Your task to perform on an android device: remove spam from my inbox in the gmail app Image 0: 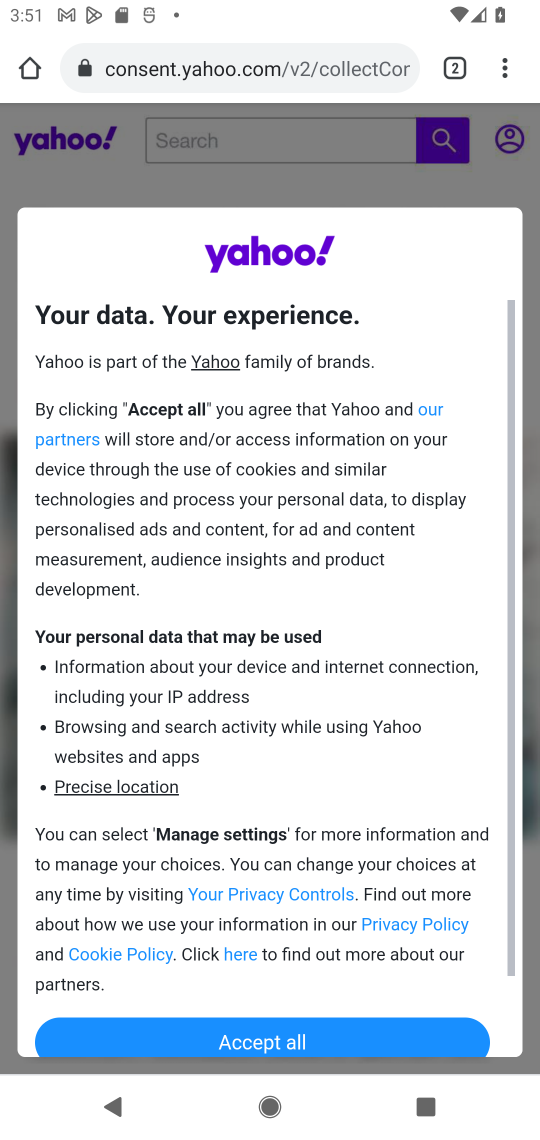
Step 0: press home button
Your task to perform on an android device: remove spam from my inbox in the gmail app Image 1: 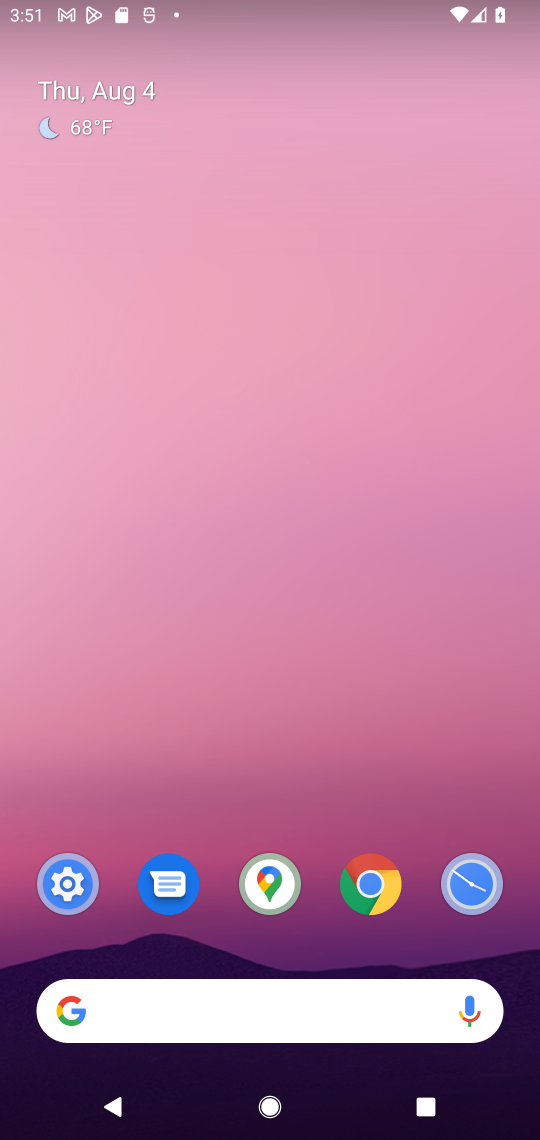
Step 1: drag from (295, 949) to (301, 165)
Your task to perform on an android device: remove spam from my inbox in the gmail app Image 2: 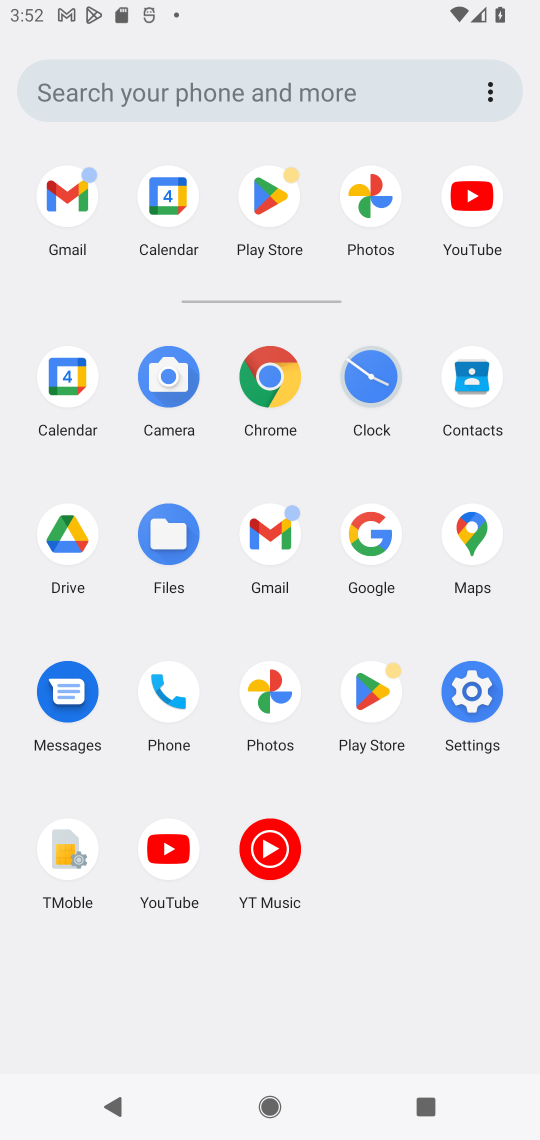
Step 2: click (265, 551)
Your task to perform on an android device: remove spam from my inbox in the gmail app Image 3: 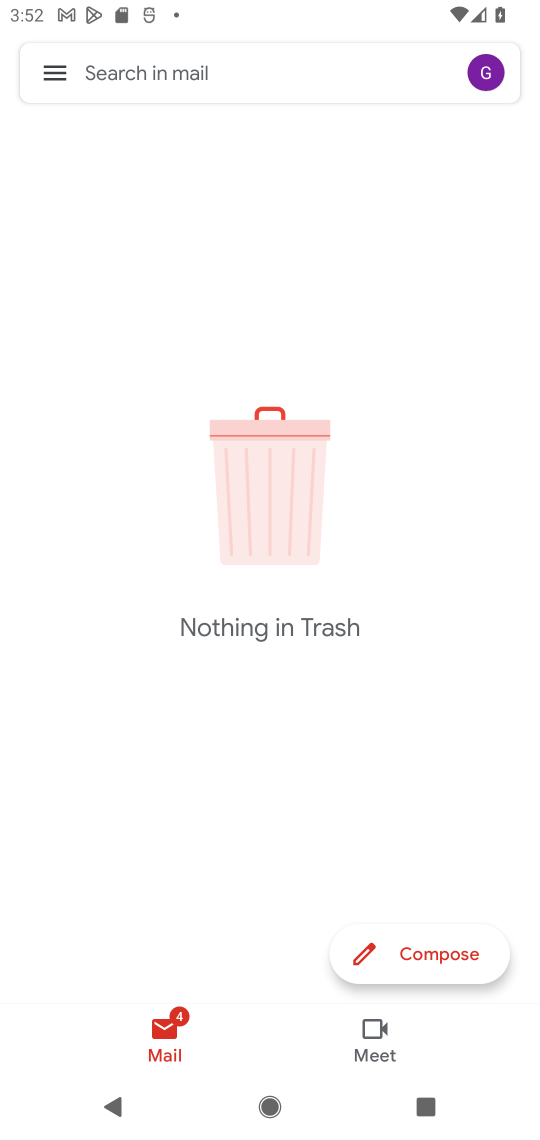
Step 3: task complete